Your task to perform on an android device: turn off priority inbox in the gmail app Image 0: 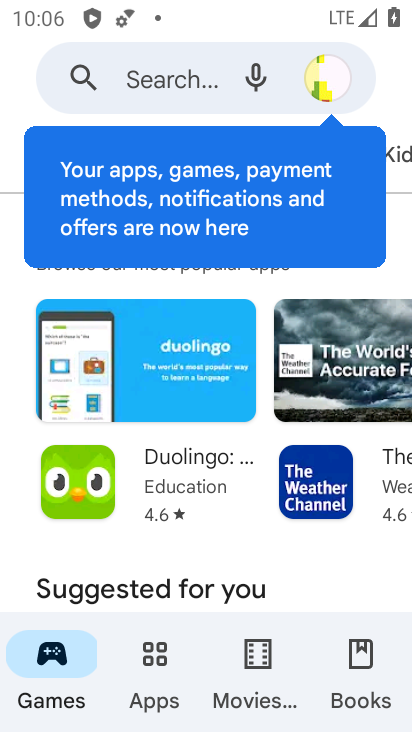
Step 0: press home button
Your task to perform on an android device: turn off priority inbox in the gmail app Image 1: 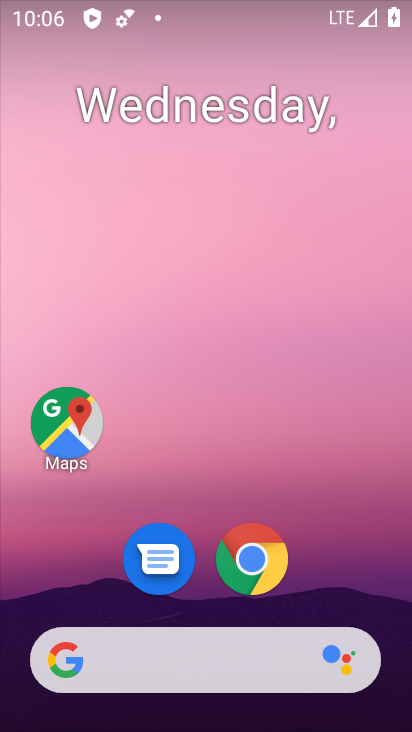
Step 1: drag from (335, 554) to (250, 219)
Your task to perform on an android device: turn off priority inbox in the gmail app Image 2: 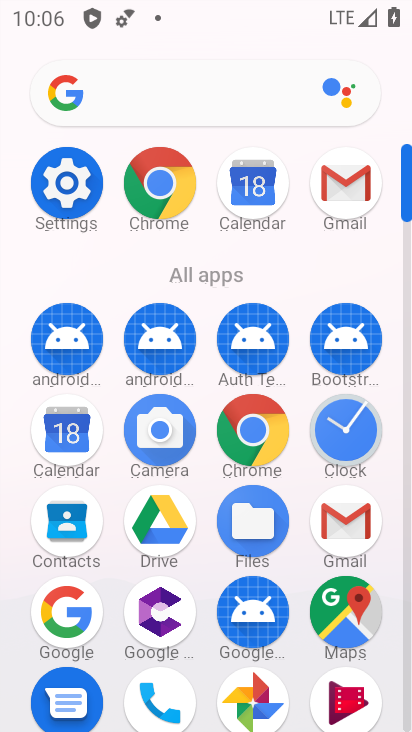
Step 2: click (330, 196)
Your task to perform on an android device: turn off priority inbox in the gmail app Image 3: 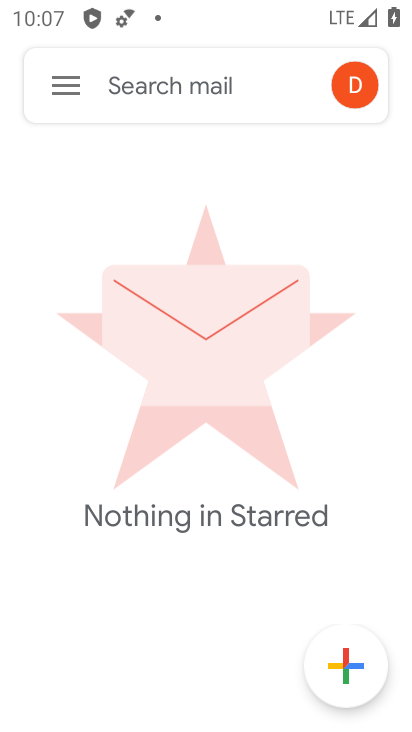
Step 3: click (88, 80)
Your task to perform on an android device: turn off priority inbox in the gmail app Image 4: 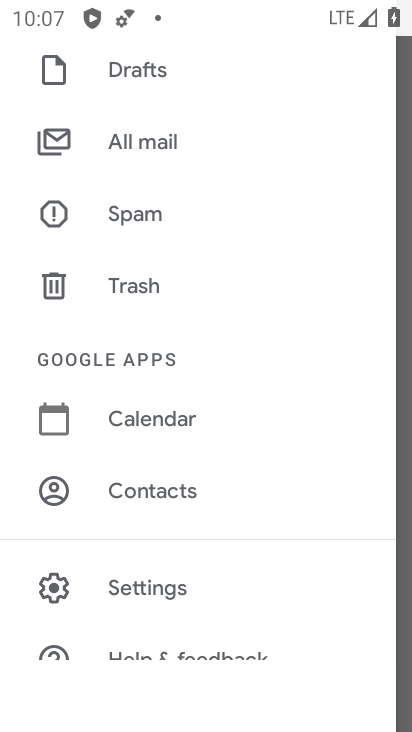
Step 4: drag from (93, 569) to (106, 170)
Your task to perform on an android device: turn off priority inbox in the gmail app Image 5: 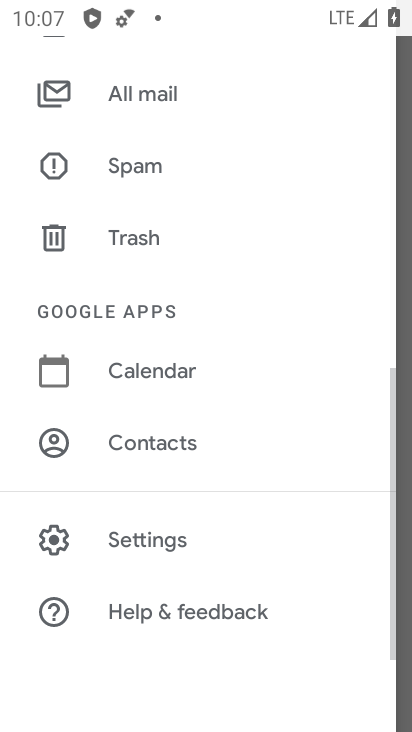
Step 5: click (145, 549)
Your task to perform on an android device: turn off priority inbox in the gmail app Image 6: 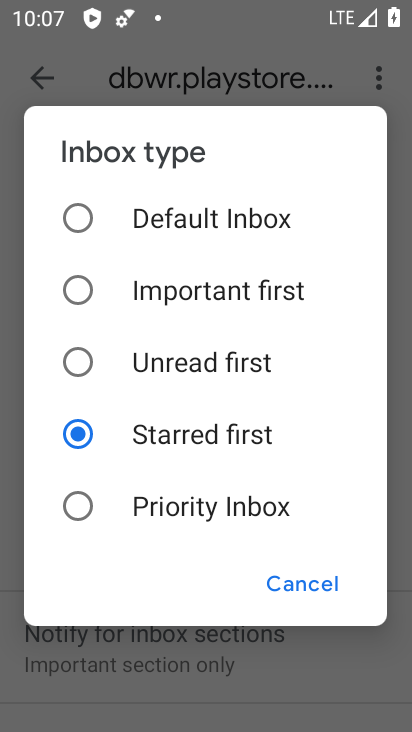
Step 6: task complete